Your task to perform on an android device: toggle priority inbox in the gmail app Image 0: 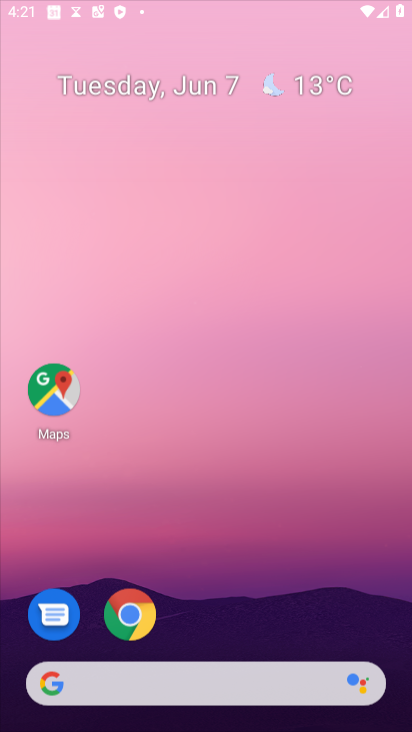
Step 0: click (247, 373)
Your task to perform on an android device: toggle priority inbox in the gmail app Image 1: 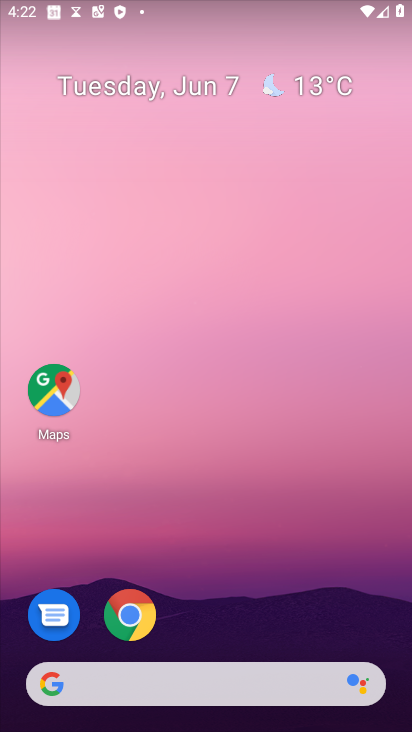
Step 1: drag from (240, 675) to (138, 76)
Your task to perform on an android device: toggle priority inbox in the gmail app Image 2: 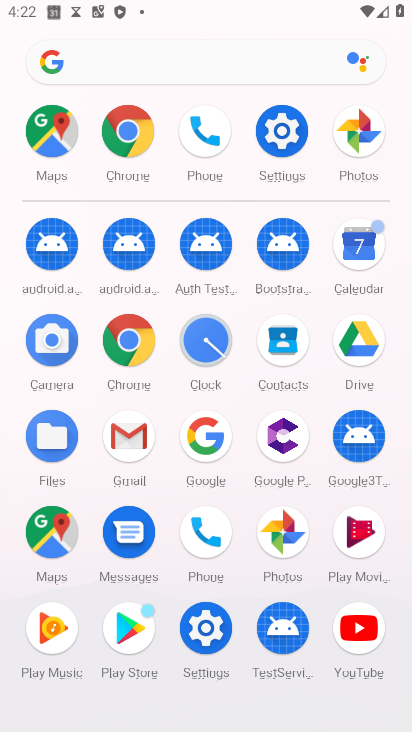
Step 2: click (133, 436)
Your task to perform on an android device: toggle priority inbox in the gmail app Image 3: 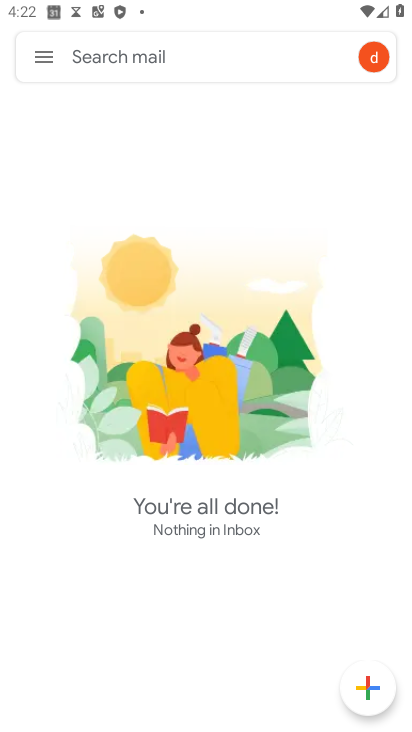
Step 3: click (35, 54)
Your task to perform on an android device: toggle priority inbox in the gmail app Image 4: 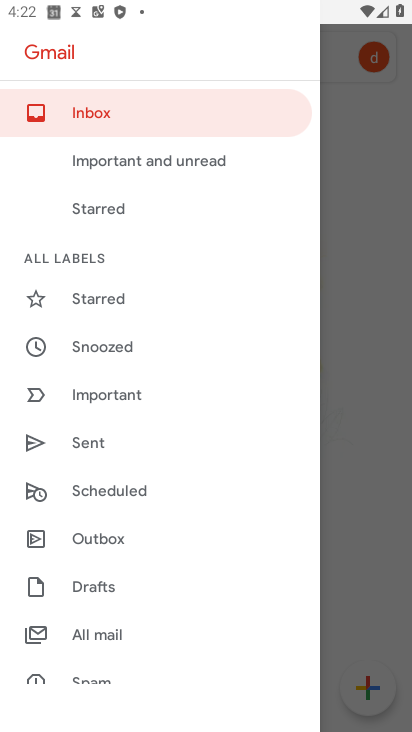
Step 4: drag from (105, 568) to (64, 209)
Your task to perform on an android device: toggle priority inbox in the gmail app Image 5: 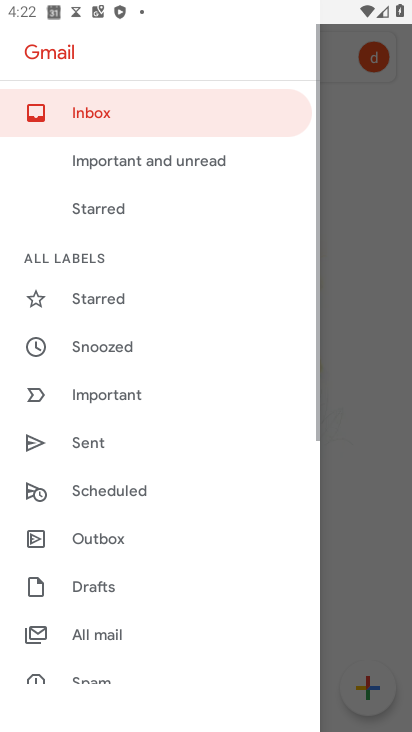
Step 5: drag from (141, 511) to (133, 251)
Your task to perform on an android device: toggle priority inbox in the gmail app Image 6: 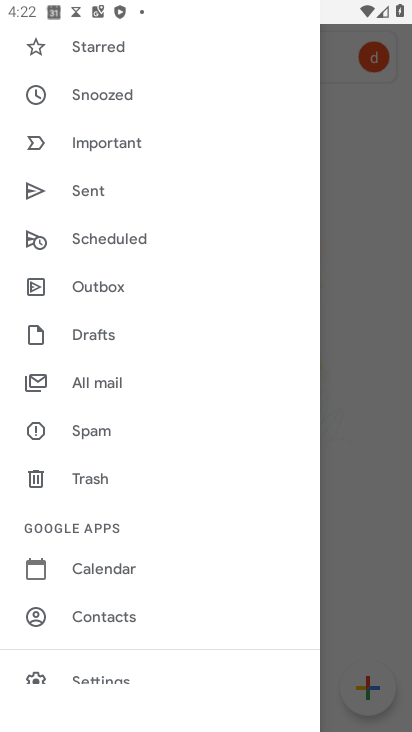
Step 6: drag from (121, 483) to (81, 229)
Your task to perform on an android device: toggle priority inbox in the gmail app Image 7: 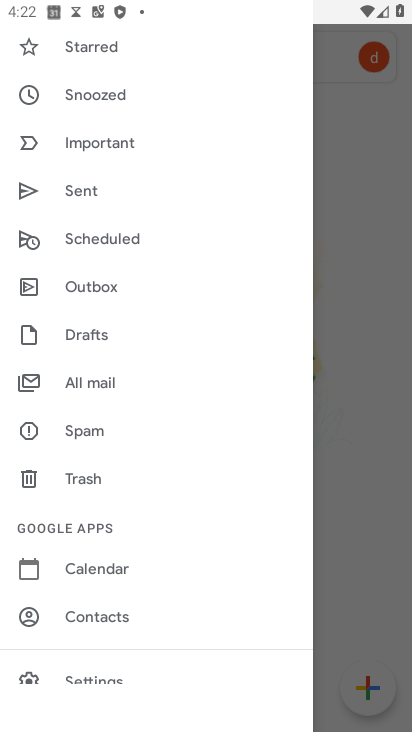
Step 7: drag from (146, 554) to (167, 257)
Your task to perform on an android device: toggle priority inbox in the gmail app Image 8: 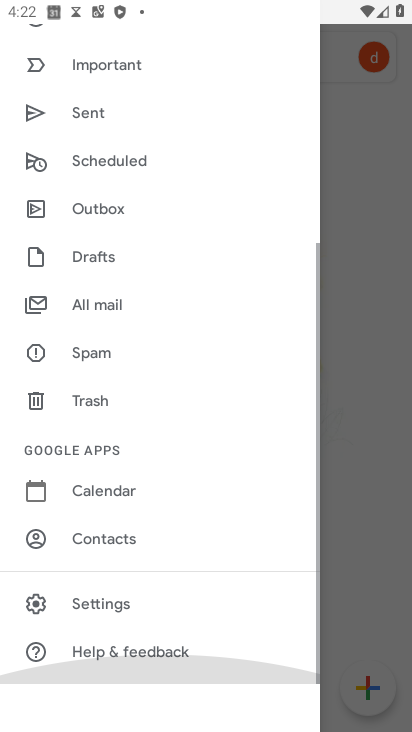
Step 8: drag from (187, 393) to (199, 237)
Your task to perform on an android device: toggle priority inbox in the gmail app Image 9: 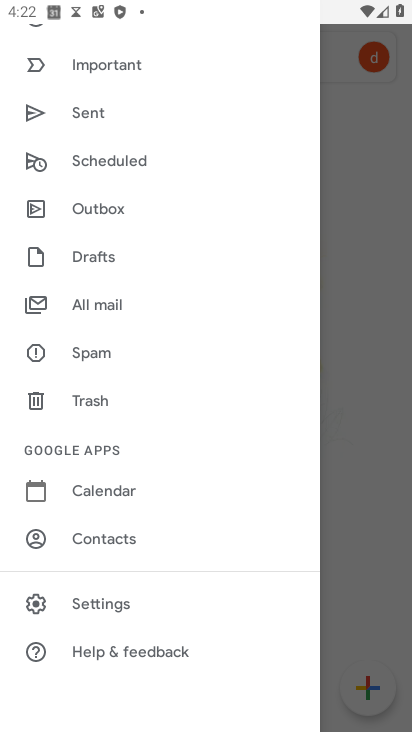
Step 9: click (93, 602)
Your task to perform on an android device: toggle priority inbox in the gmail app Image 10: 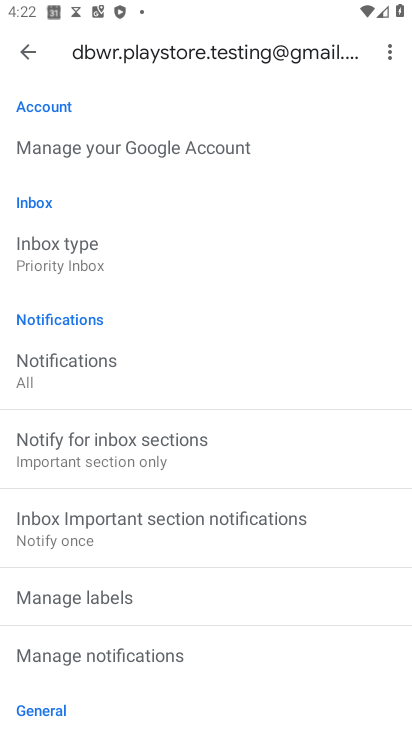
Step 10: click (48, 265)
Your task to perform on an android device: toggle priority inbox in the gmail app Image 11: 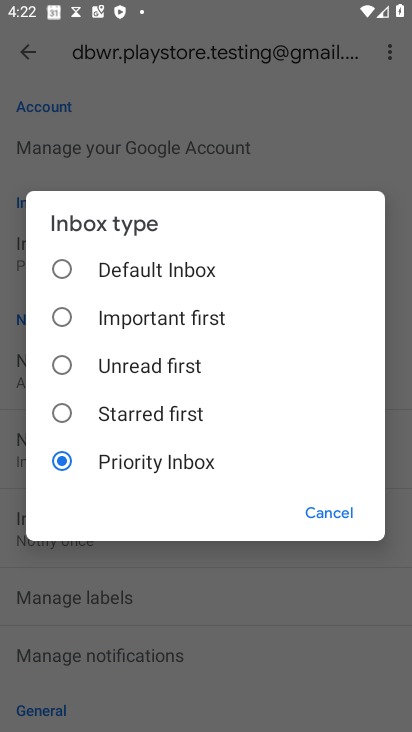
Step 11: click (317, 516)
Your task to perform on an android device: toggle priority inbox in the gmail app Image 12: 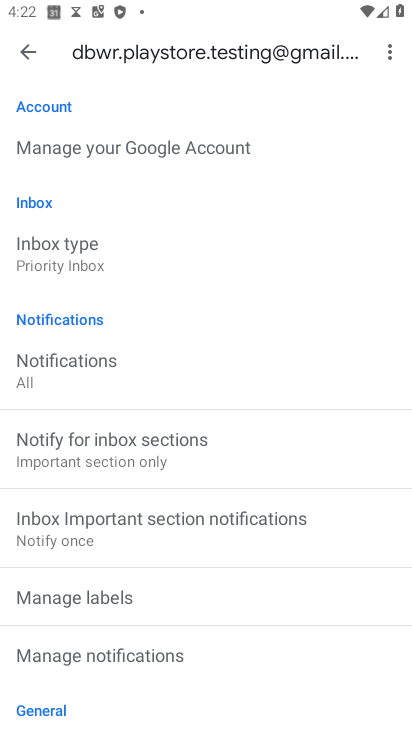
Step 12: task complete